Your task to perform on an android device: turn off sleep mode Image 0: 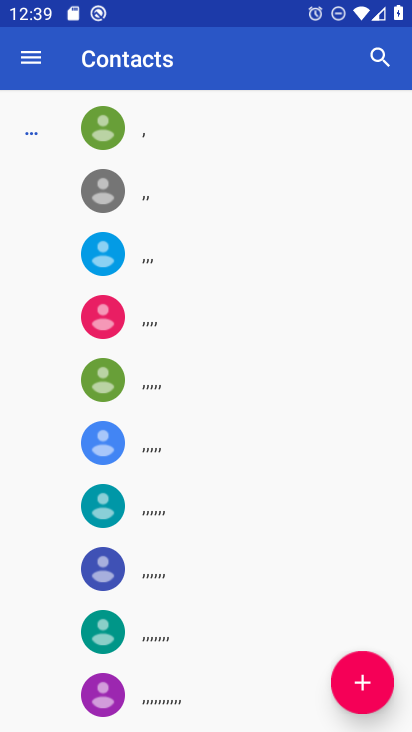
Step 0: press home button
Your task to perform on an android device: turn off sleep mode Image 1: 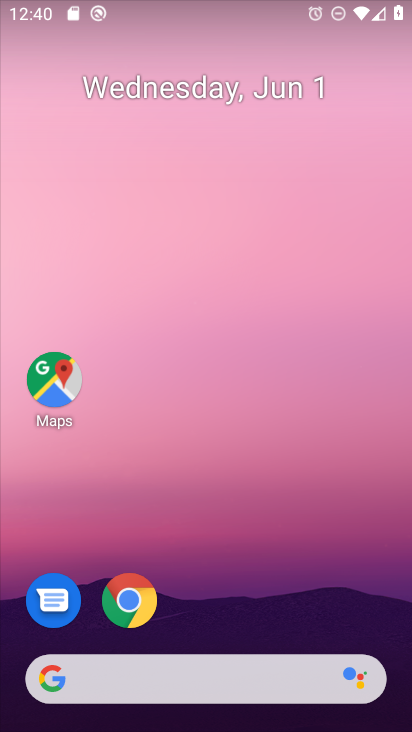
Step 1: drag from (229, 627) to (251, 130)
Your task to perform on an android device: turn off sleep mode Image 2: 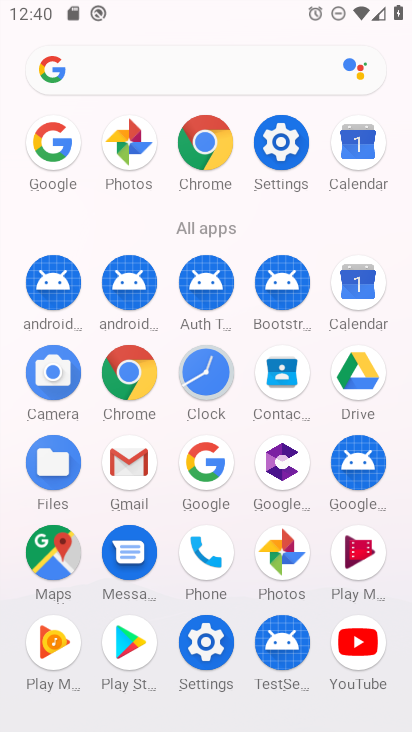
Step 2: click (276, 136)
Your task to perform on an android device: turn off sleep mode Image 3: 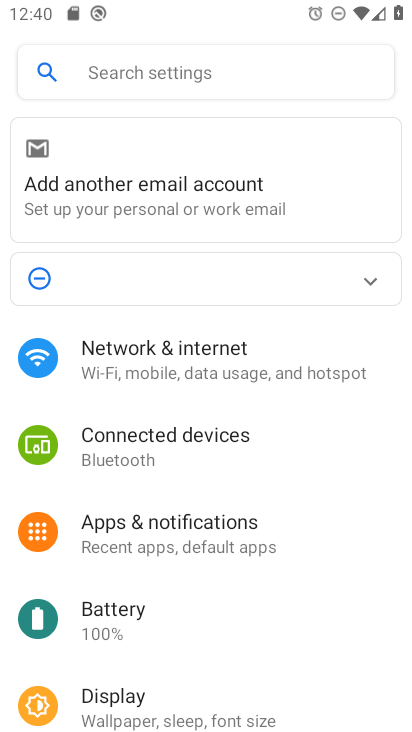
Step 3: drag from (195, 665) to (214, 210)
Your task to perform on an android device: turn off sleep mode Image 4: 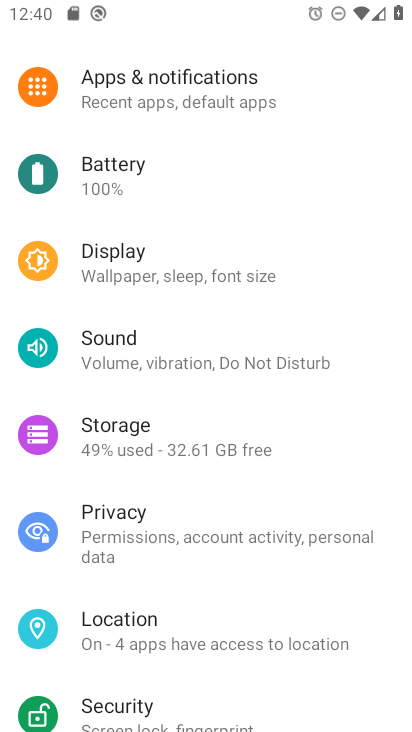
Step 4: click (154, 259)
Your task to perform on an android device: turn off sleep mode Image 5: 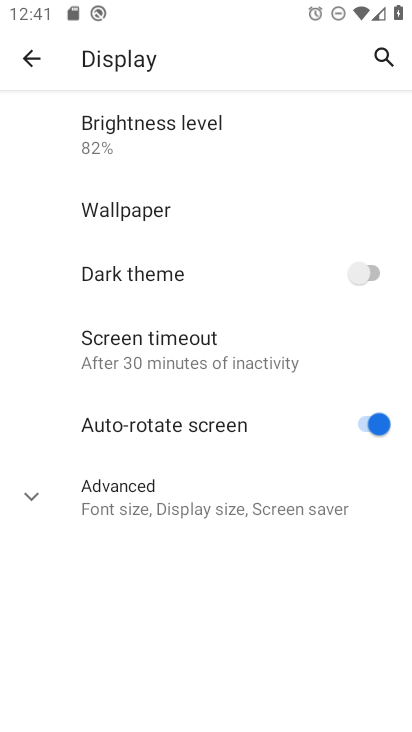
Step 5: click (36, 489)
Your task to perform on an android device: turn off sleep mode Image 6: 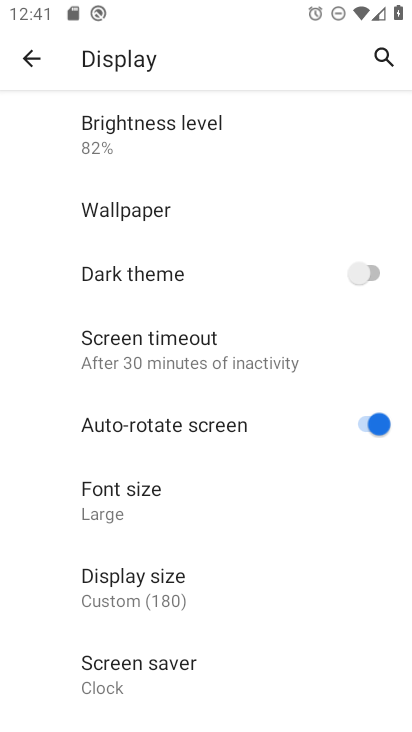
Step 6: task complete